Your task to perform on an android device: visit the assistant section in the google photos Image 0: 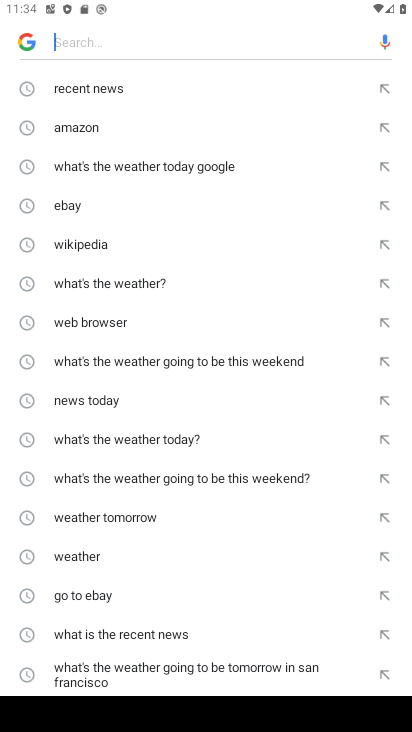
Step 0: press home button
Your task to perform on an android device: visit the assistant section in the google photos Image 1: 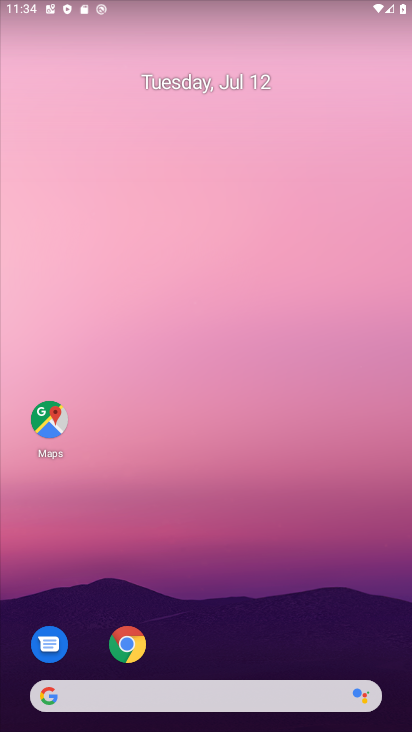
Step 1: drag from (186, 576) to (153, 67)
Your task to perform on an android device: visit the assistant section in the google photos Image 2: 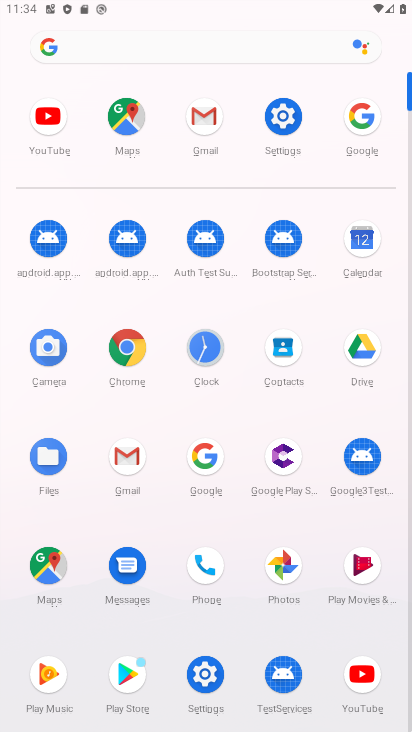
Step 2: click (291, 564)
Your task to perform on an android device: visit the assistant section in the google photos Image 3: 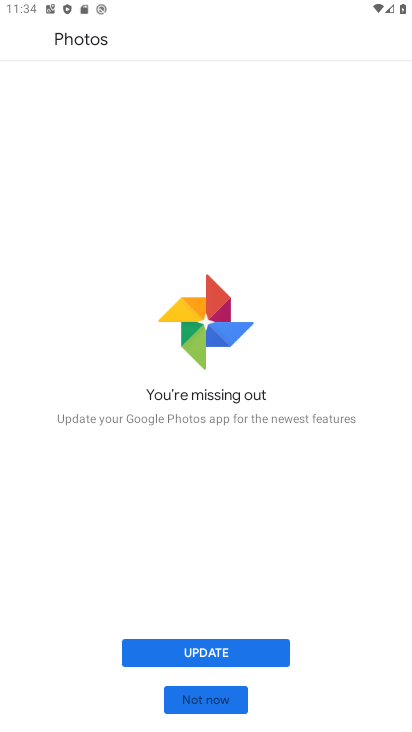
Step 3: click (197, 653)
Your task to perform on an android device: visit the assistant section in the google photos Image 4: 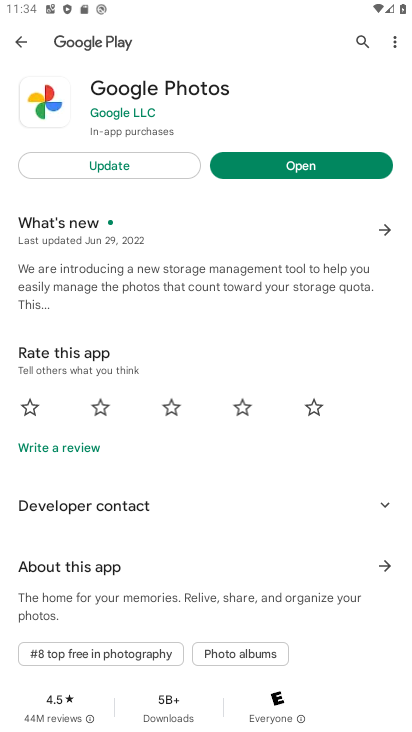
Step 4: click (120, 162)
Your task to perform on an android device: visit the assistant section in the google photos Image 5: 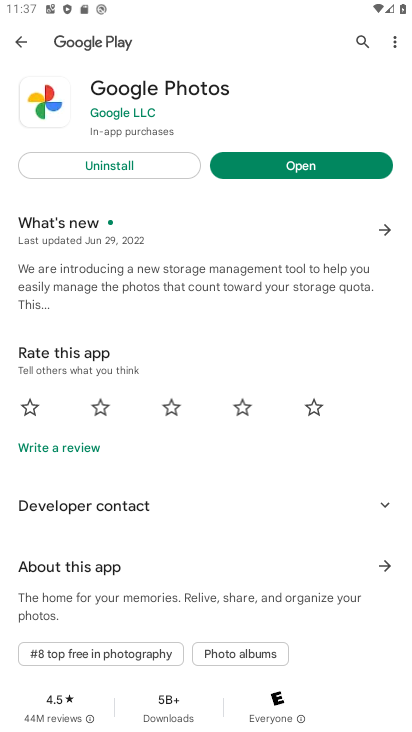
Step 5: click (329, 163)
Your task to perform on an android device: visit the assistant section in the google photos Image 6: 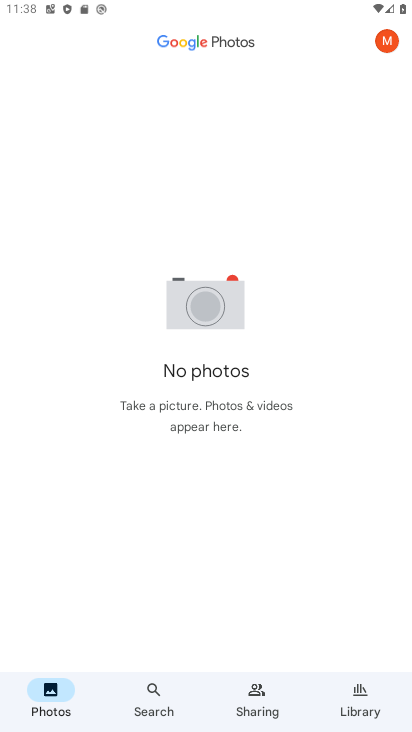
Step 6: task complete